Your task to perform on an android device: Open calendar and show me the third week of next month Image 0: 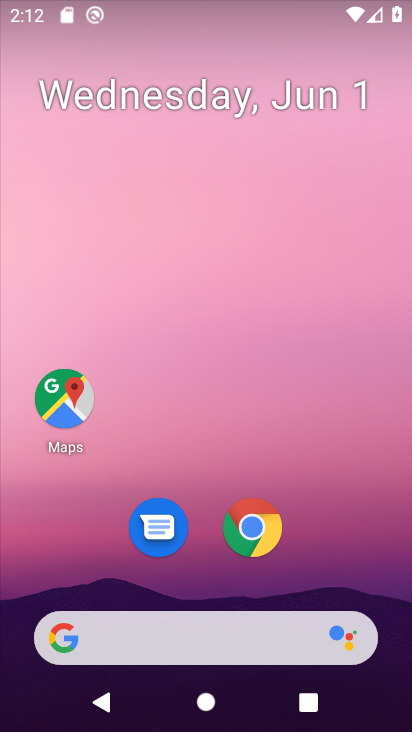
Step 0: drag from (206, 575) to (293, 145)
Your task to perform on an android device: Open calendar and show me the third week of next month Image 1: 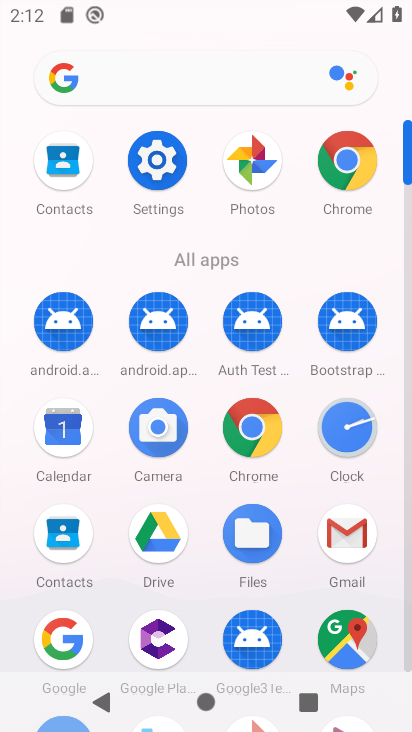
Step 1: click (74, 444)
Your task to perform on an android device: Open calendar and show me the third week of next month Image 2: 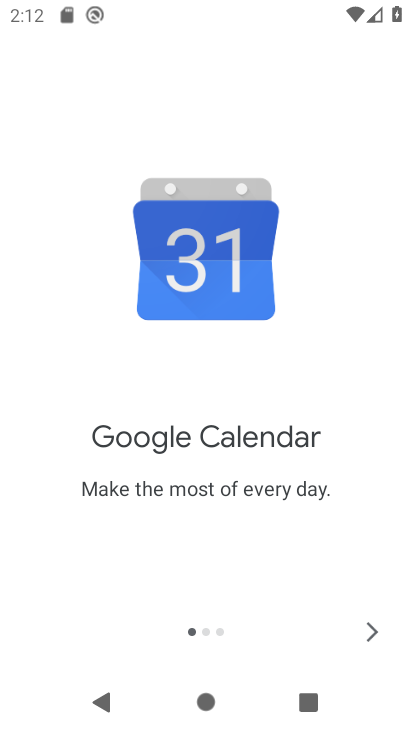
Step 2: click (373, 627)
Your task to perform on an android device: Open calendar and show me the third week of next month Image 3: 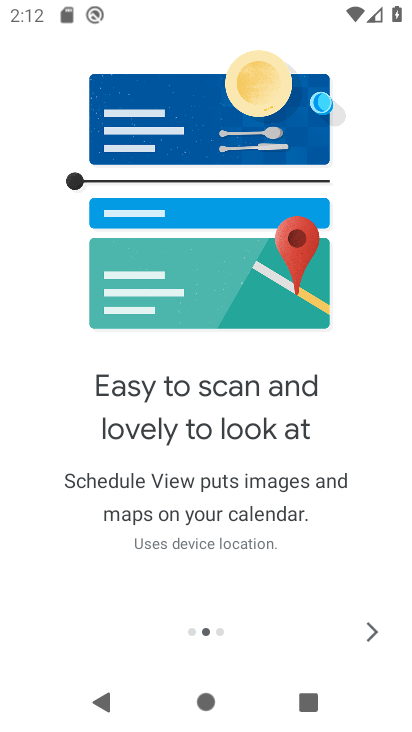
Step 3: click (366, 630)
Your task to perform on an android device: Open calendar and show me the third week of next month Image 4: 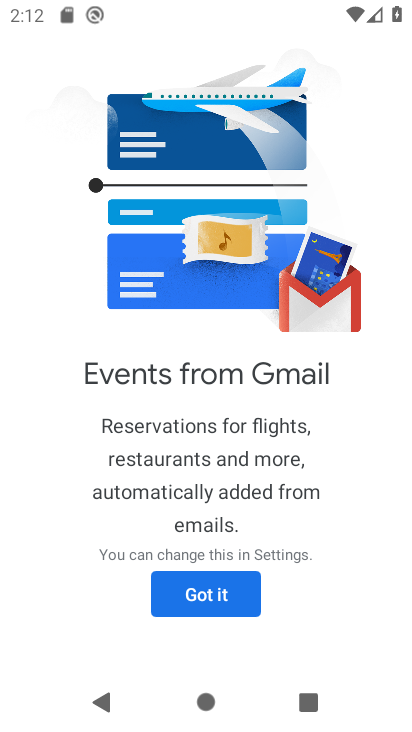
Step 4: click (244, 597)
Your task to perform on an android device: Open calendar and show me the third week of next month Image 5: 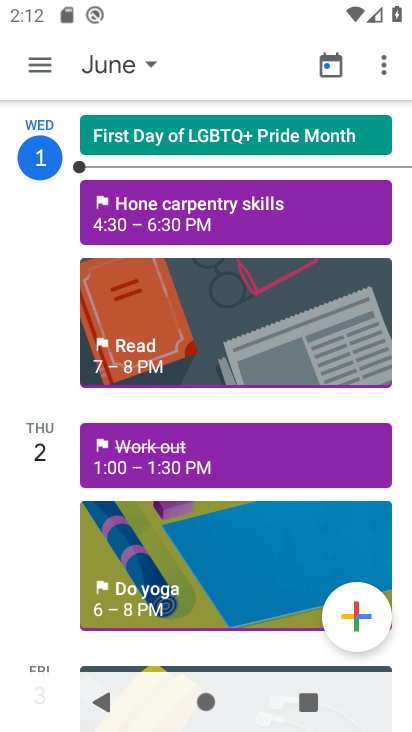
Step 5: click (42, 70)
Your task to perform on an android device: Open calendar and show me the third week of next month Image 6: 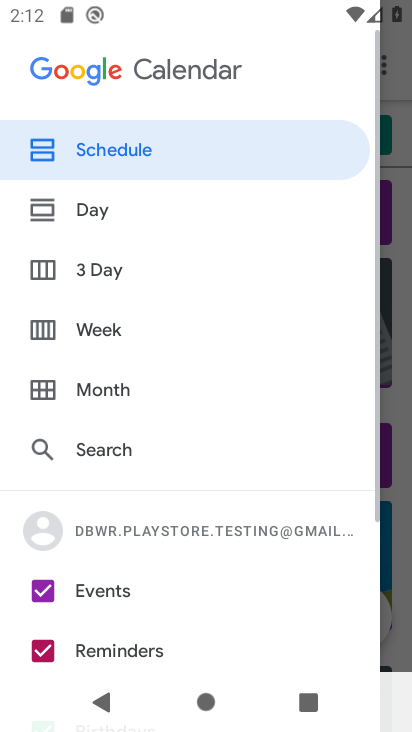
Step 6: click (94, 332)
Your task to perform on an android device: Open calendar and show me the third week of next month Image 7: 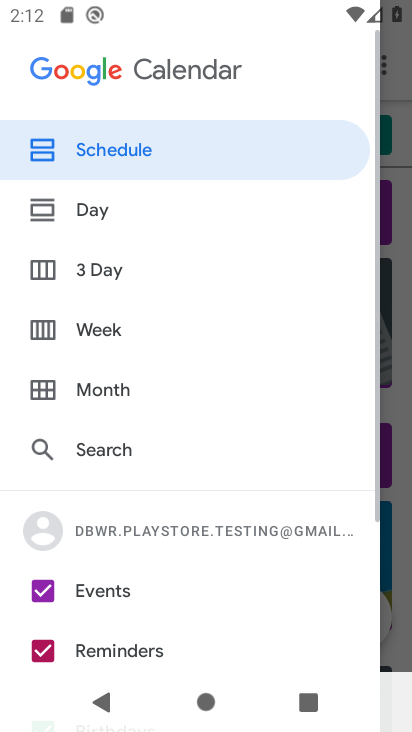
Step 7: click (100, 337)
Your task to perform on an android device: Open calendar and show me the third week of next month Image 8: 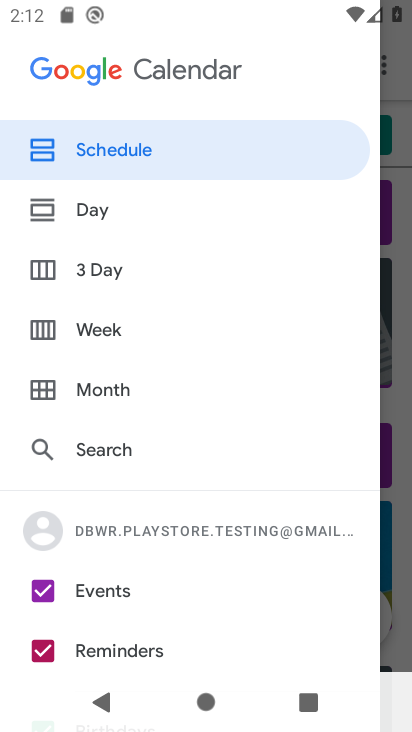
Step 8: click (96, 218)
Your task to perform on an android device: Open calendar and show me the third week of next month Image 9: 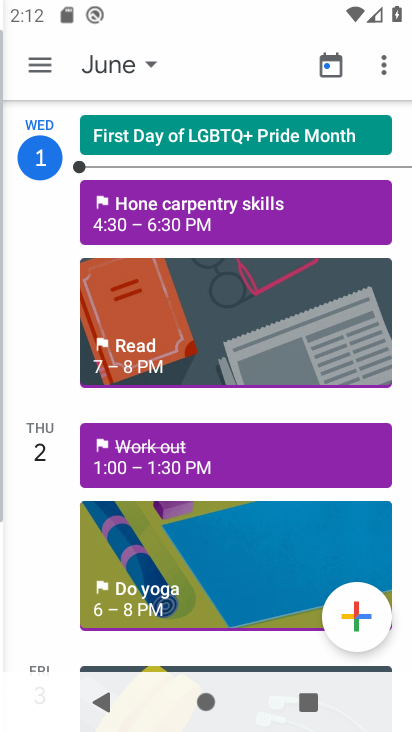
Step 9: click (106, 374)
Your task to perform on an android device: Open calendar and show me the third week of next month Image 10: 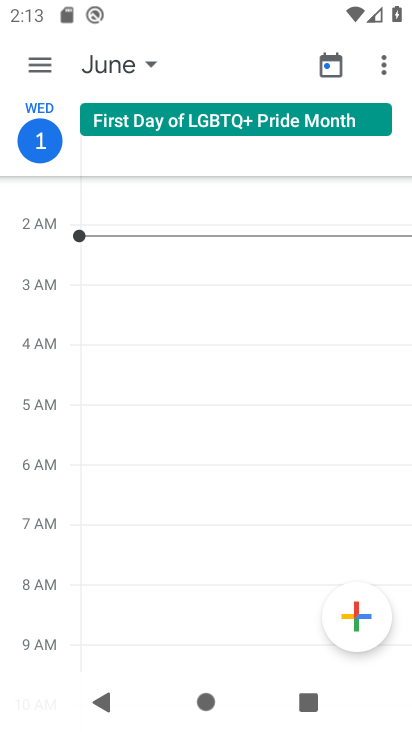
Step 10: click (25, 73)
Your task to perform on an android device: Open calendar and show me the third week of next month Image 11: 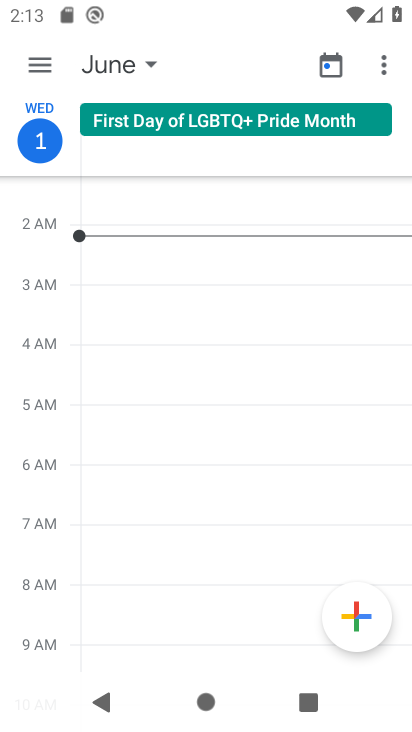
Step 11: click (132, 70)
Your task to perform on an android device: Open calendar and show me the third week of next month Image 12: 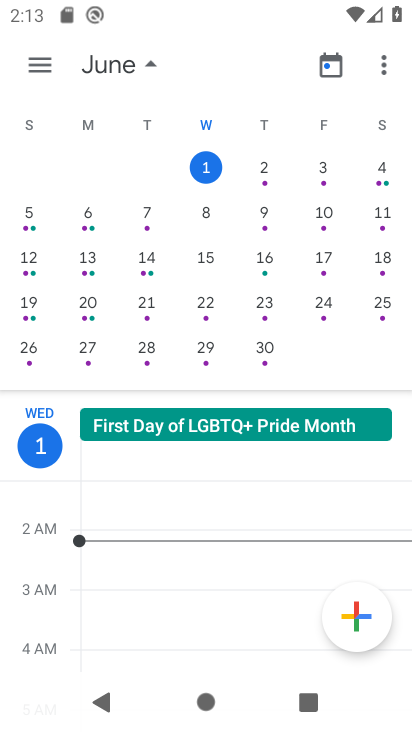
Step 12: drag from (349, 267) to (0, 197)
Your task to perform on an android device: Open calendar and show me the third week of next month Image 13: 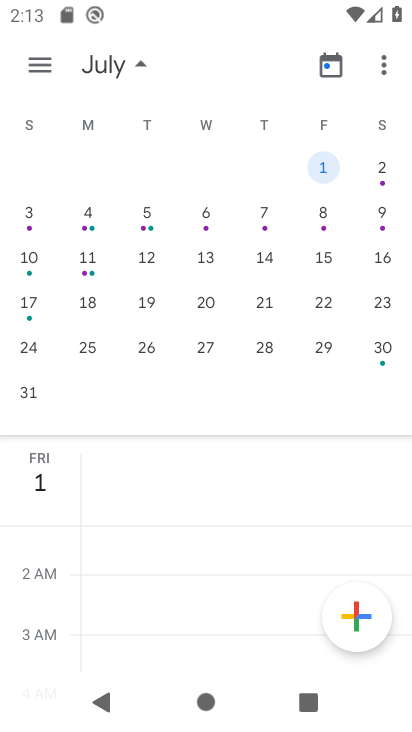
Step 13: click (330, 169)
Your task to perform on an android device: Open calendar and show me the third week of next month Image 14: 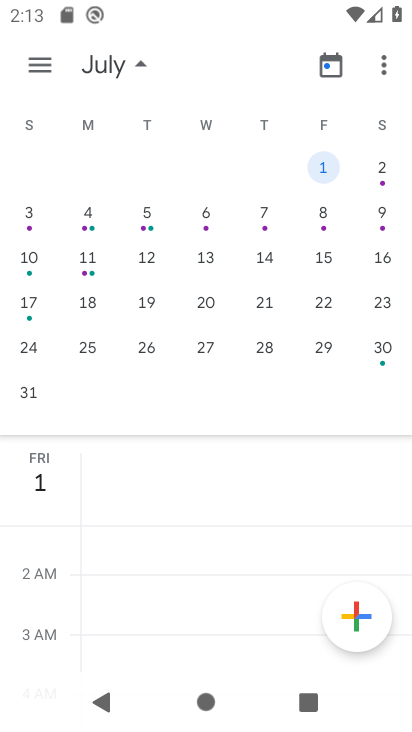
Step 14: click (49, 59)
Your task to perform on an android device: Open calendar and show me the third week of next month Image 15: 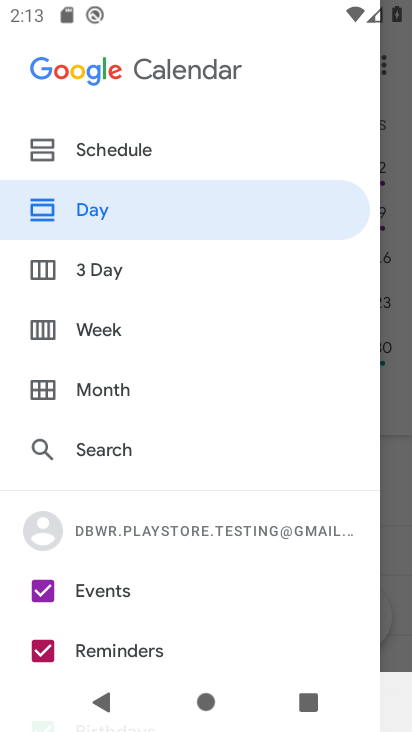
Step 15: click (101, 338)
Your task to perform on an android device: Open calendar and show me the third week of next month Image 16: 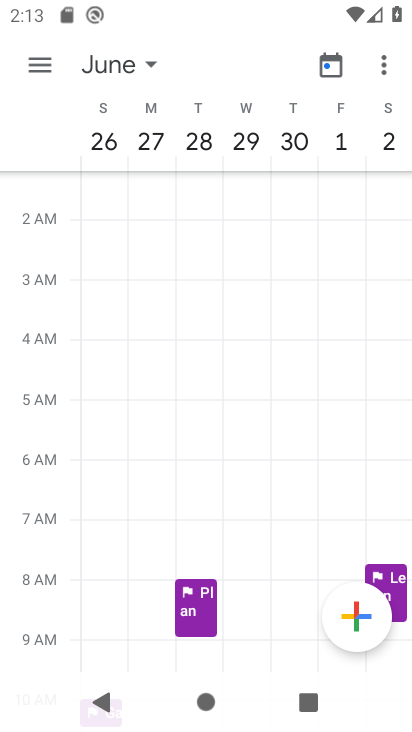
Step 16: task complete